Your task to perform on an android device: toggle notification dots Image 0: 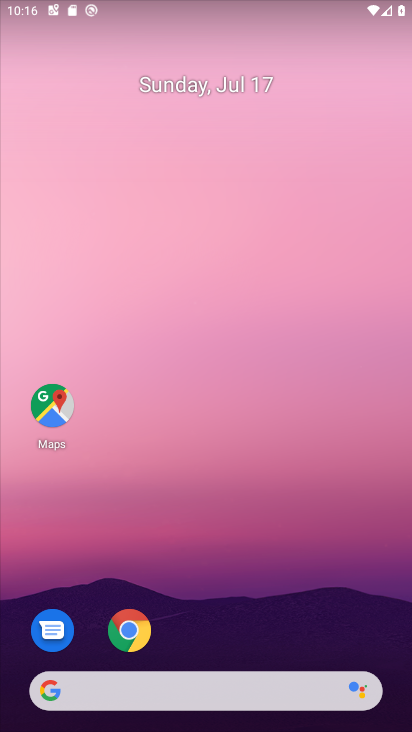
Step 0: drag from (234, 594) to (239, 39)
Your task to perform on an android device: toggle notification dots Image 1: 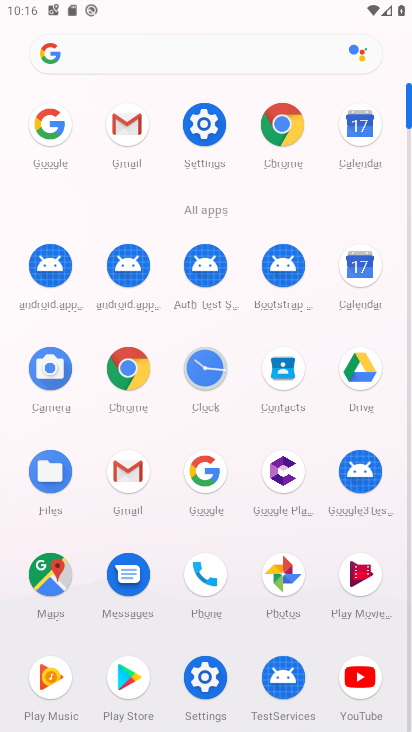
Step 1: click (203, 116)
Your task to perform on an android device: toggle notification dots Image 2: 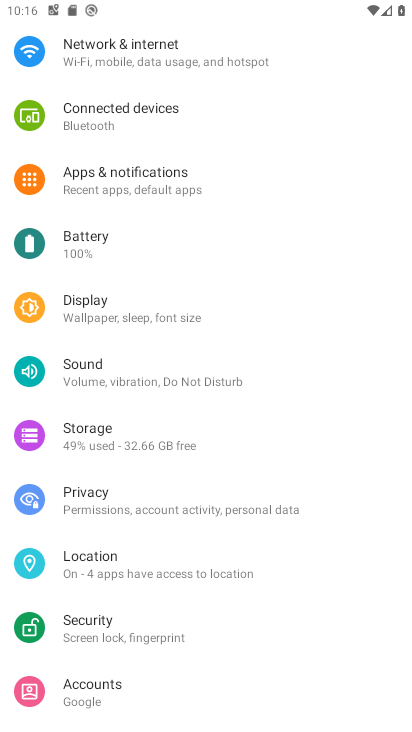
Step 2: click (172, 178)
Your task to perform on an android device: toggle notification dots Image 3: 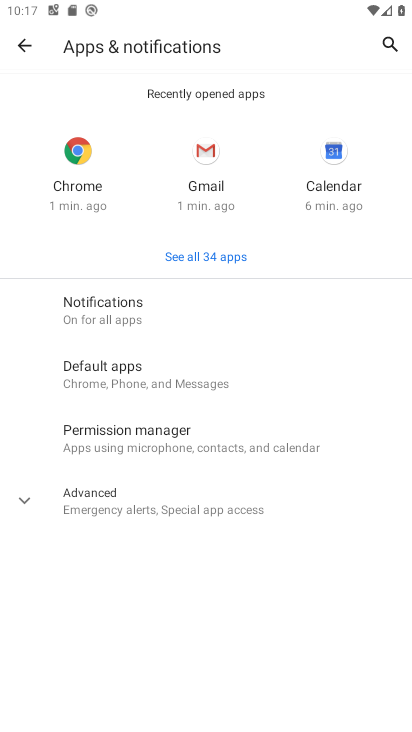
Step 3: click (136, 302)
Your task to perform on an android device: toggle notification dots Image 4: 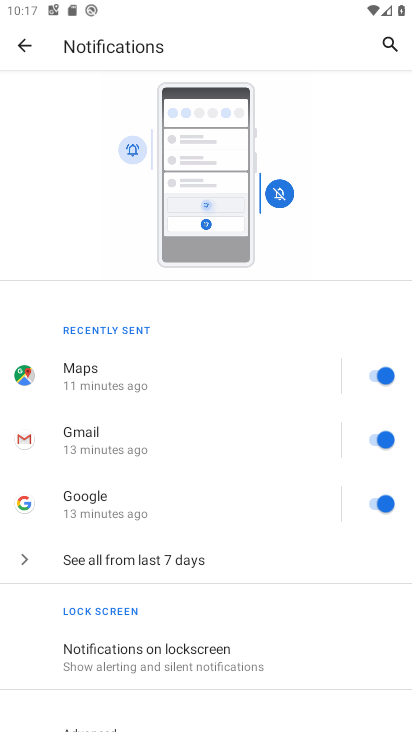
Step 4: drag from (221, 554) to (283, 216)
Your task to perform on an android device: toggle notification dots Image 5: 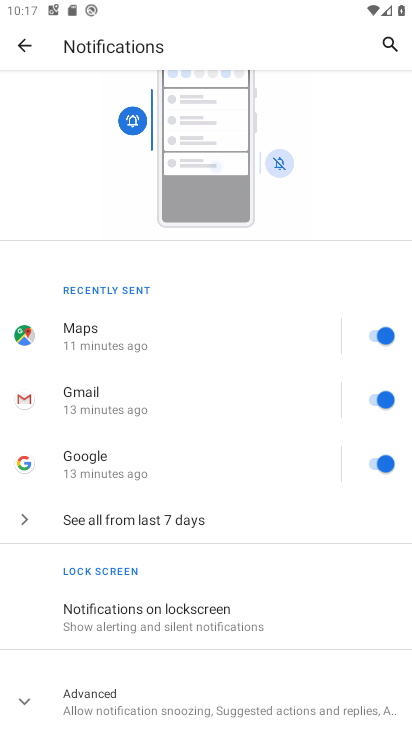
Step 5: click (22, 697)
Your task to perform on an android device: toggle notification dots Image 6: 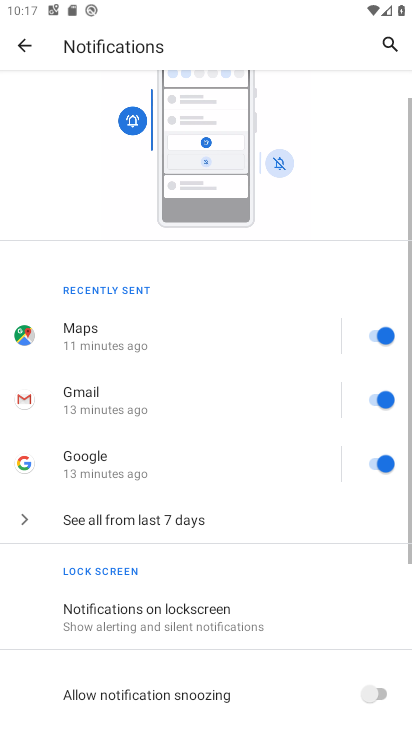
Step 6: drag from (216, 606) to (271, 199)
Your task to perform on an android device: toggle notification dots Image 7: 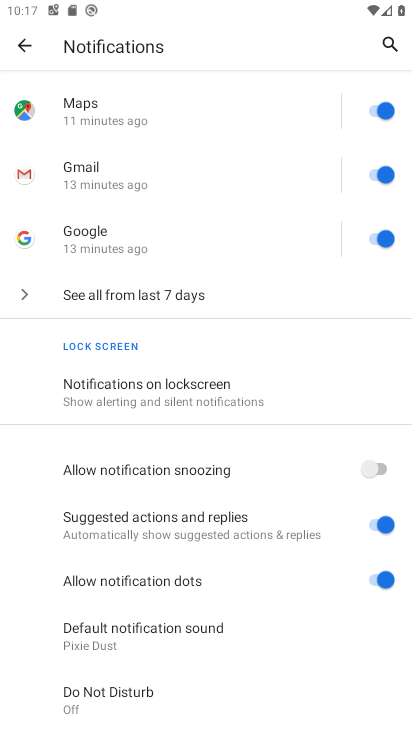
Step 7: click (372, 578)
Your task to perform on an android device: toggle notification dots Image 8: 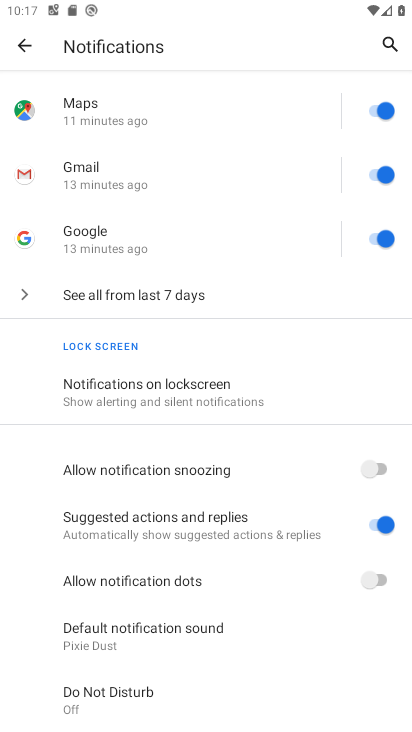
Step 8: task complete